Your task to perform on an android device: add a contact in the contacts app Image 0: 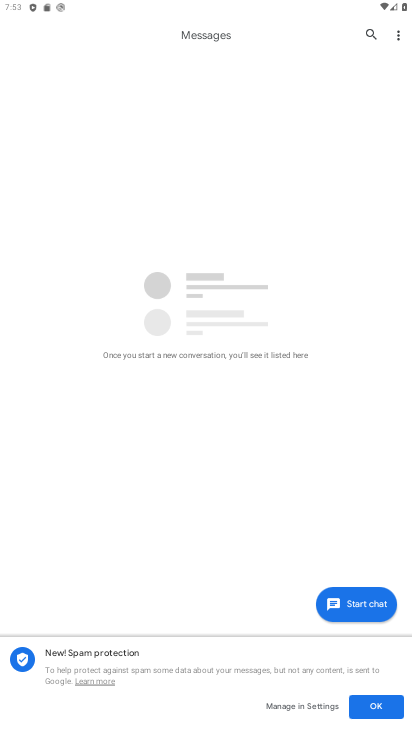
Step 0: press home button
Your task to perform on an android device: add a contact in the contacts app Image 1: 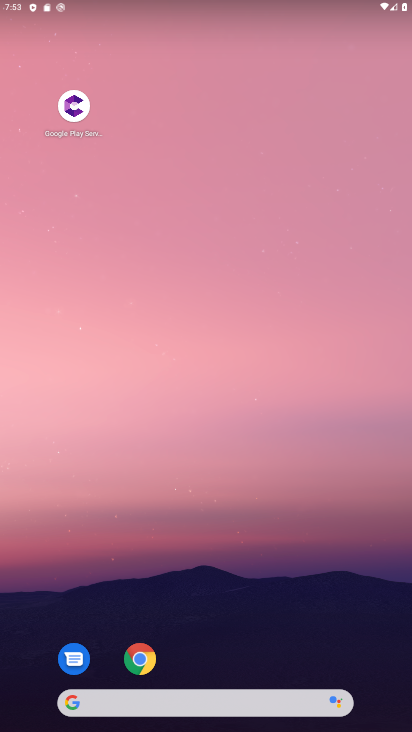
Step 1: drag from (359, 613) to (355, 71)
Your task to perform on an android device: add a contact in the contacts app Image 2: 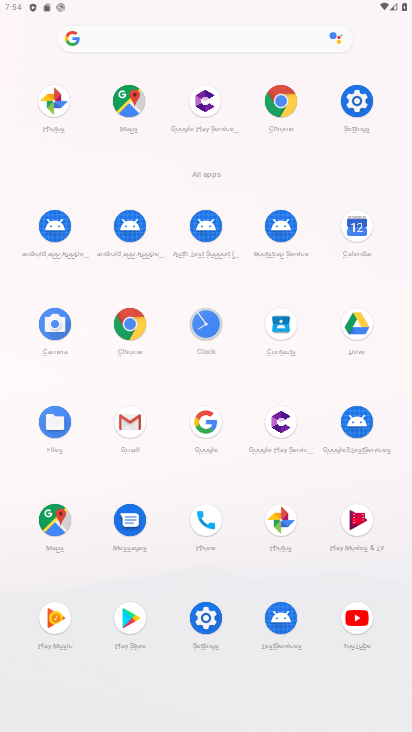
Step 2: click (297, 329)
Your task to perform on an android device: add a contact in the contacts app Image 3: 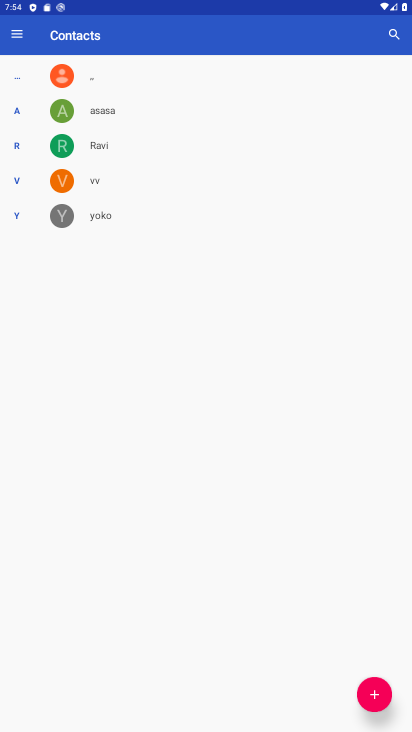
Step 3: click (379, 699)
Your task to perform on an android device: add a contact in the contacts app Image 4: 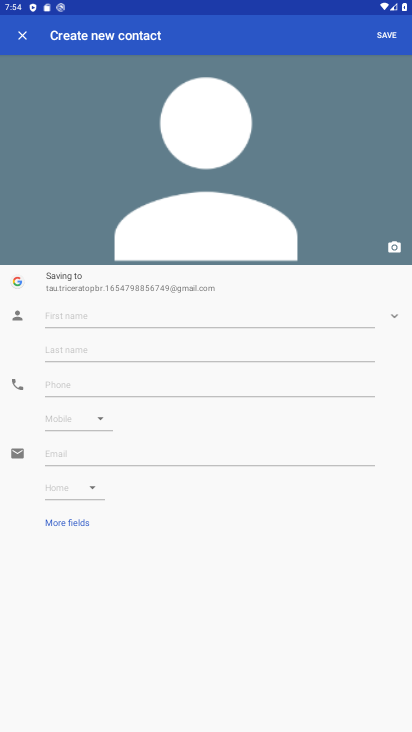
Step 4: click (135, 316)
Your task to perform on an android device: add a contact in the contacts app Image 5: 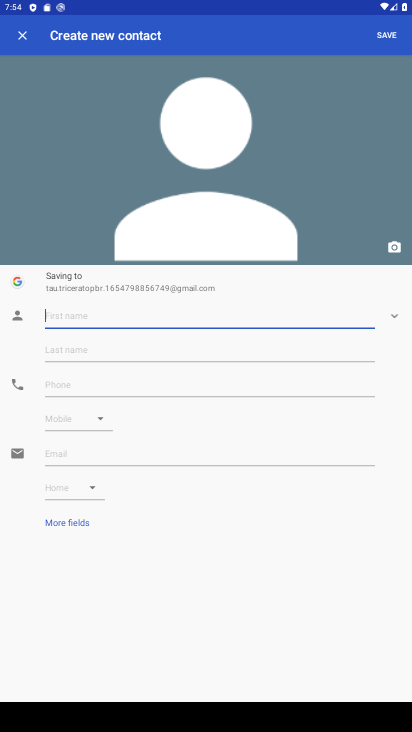
Step 5: type "fav"
Your task to perform on an android device: add a contact in the contacts app Image 6: 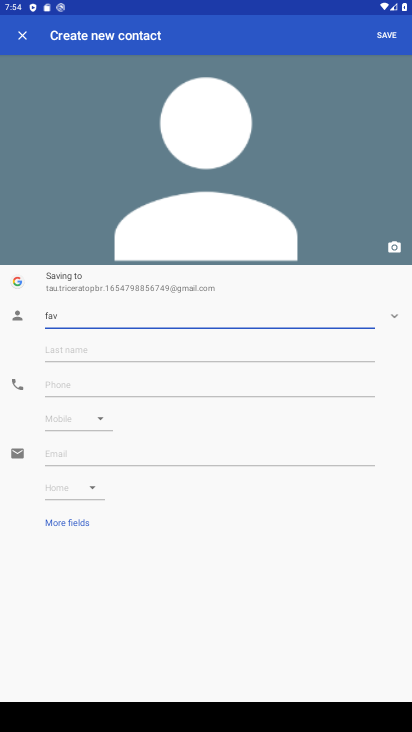
Step 6: click (123, 389)
Your task to perform on an android device: add a contact in the contacts app Image 7: 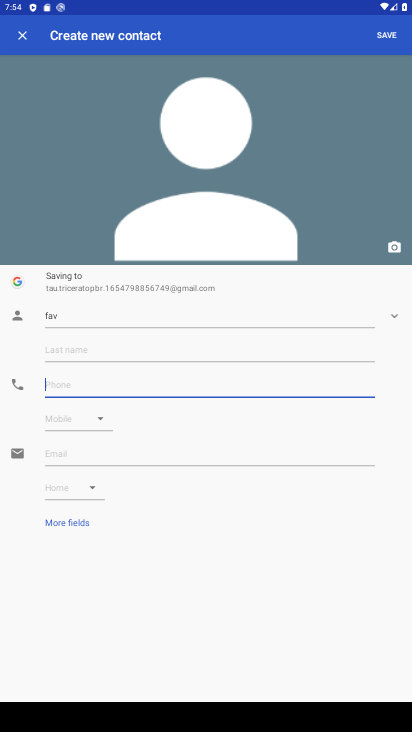
Step 7: type "1234567890"
Your task to perform on an android device: add a contact in the contacts app Image 8: 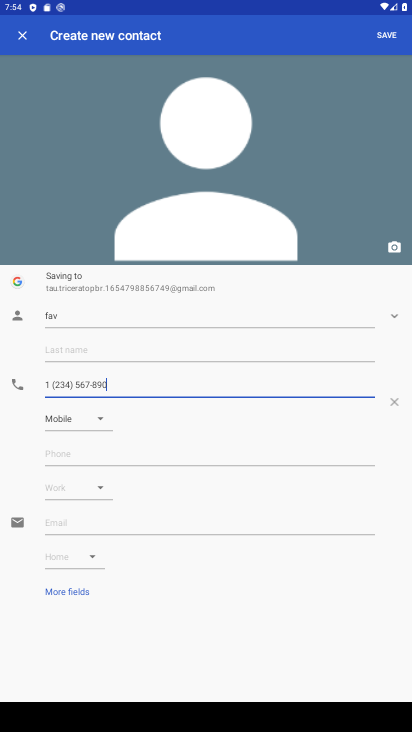
Step 8: click (381, 37)
Your task to perform on an android device: add a contact in the contacts app Image 9: 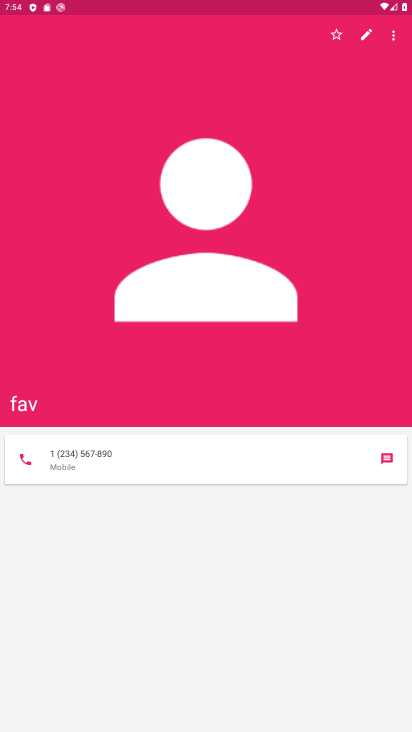
Step 9: task complete